Your task to perform on an android device: Search for "usb-a" on ebay, select the first entry, and add it to the cart. Image 0: 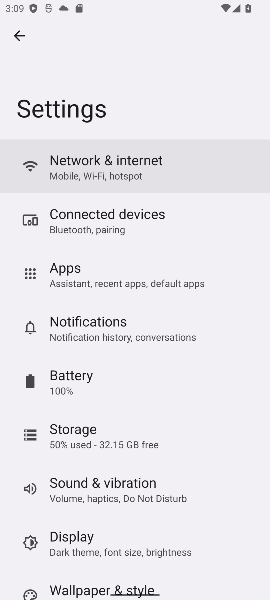
Step 0: press home button
Your task to perform on an android device: Search for "usb-a" on ebay, select the first entry, and add it to the cart. Image 1: 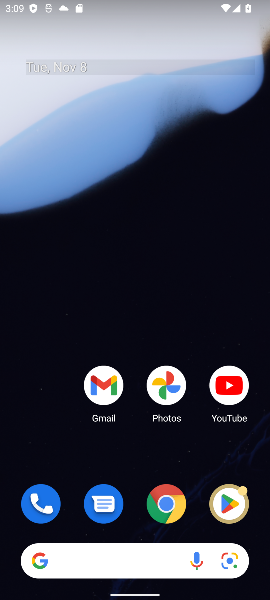
Step 1: drag from (65, 487) to (2, 131)
Your task to perform on an android device: Search for "usb-a" on ebay, select the first entry, and add it to the cart. Image 2: 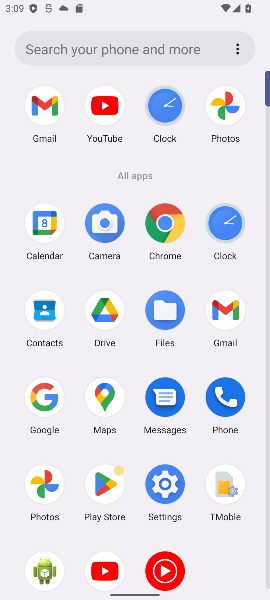
Step 2: click (165, 235)
Your task to perform on an android device: Search for "usb-a" on ebay, select the first entry, and add it to the cart. Image 3: 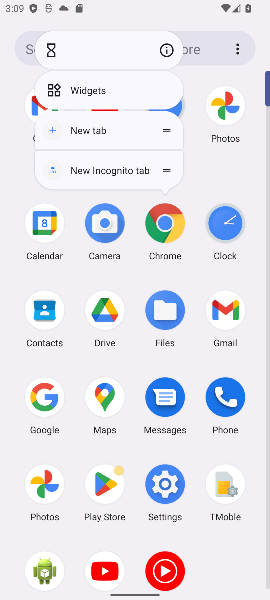
Step 3: click (165, 235)
Your task to perform on an android device: Search for "usb-a" on ebay, select the first entry, and add it to the cart. Image 4: 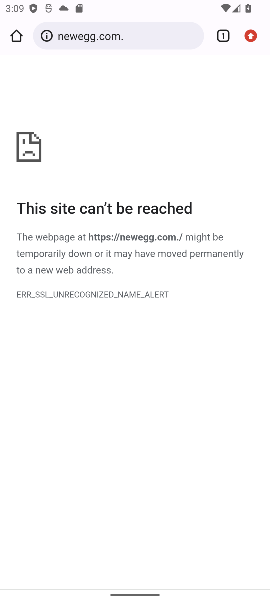
Step 4: click (132, 32)
Your task to perform on an android device: Search for "usb-a" on ebay, select the first entry, and add it to the cart. Image 5: 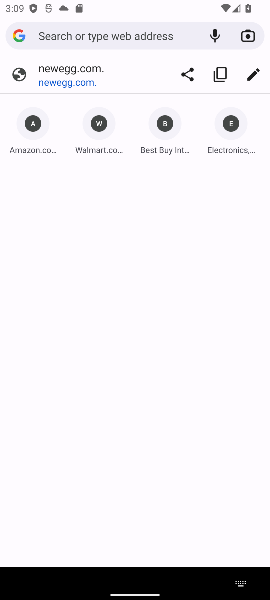
Step 5: type "ebay"
Your task to perform on an android device: Search for "usb-a" on ebay, select the first entry, and add it to the cart. Image 6: 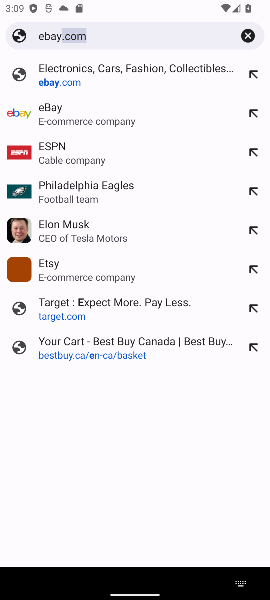
Step 6: press enter
Your task to perform on an android device: Search for "usb-a" on ebay, select the first entry, and add it to the cart. Image 7: 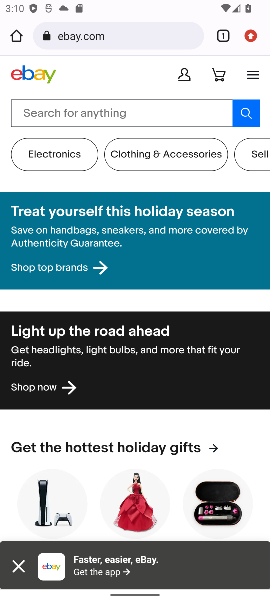
Step 7: click (73, 105)
Your task to perform on an android device: Search for "usb-a" on ebay, select the first entry, and add it to the cart. Image 8: 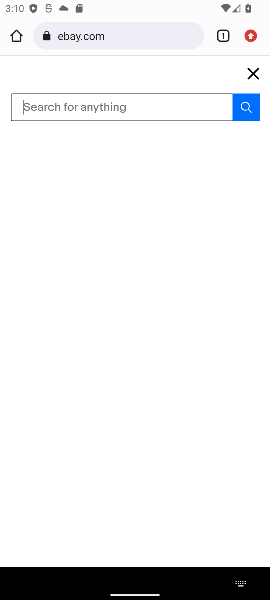
Step 8: type "usb-a"
Your task to perform on an android device: Search for "usb-a" on ebay, select the first entry, and add it to the cart. Image 9: 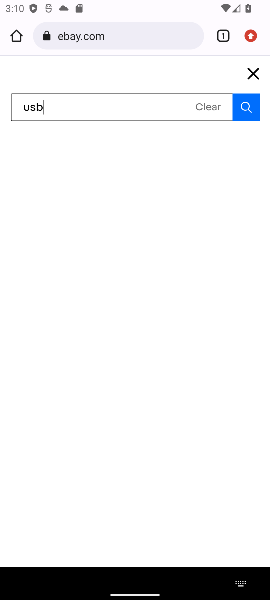
Step 9: press enter
Your task to perform on an android device: Search for "usb-a" on ebay, select the first entry, and add it to the cart. Image 10: 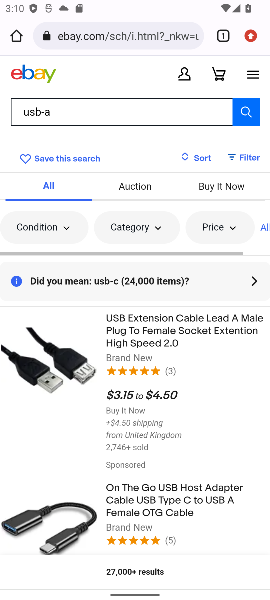
Step 10: click (137, 330)
Your task to perform on an android device: Search for "usb-a" on ebay, select the first entry, and add it to the cart. Image 11: 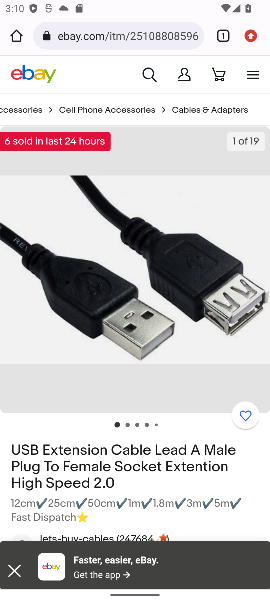
Step 11: drag from (151, 471) to (125, 300)
Your task to perform on an android device: Search for "usb-a" on ebay, select the first entry, and add it to the cart. Image 12: 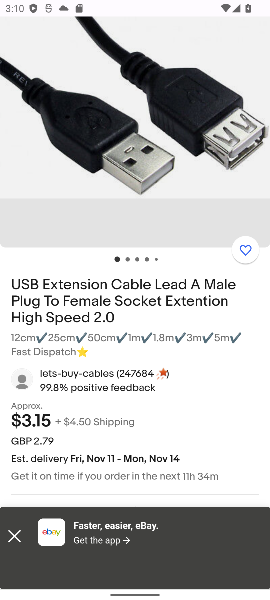
Step 12: drag from (128, 436) to (131, 255)
Your task to perform on an android device: Search for "usb-a" on ebay, select the first entry, and add it to the cart. Image 13: 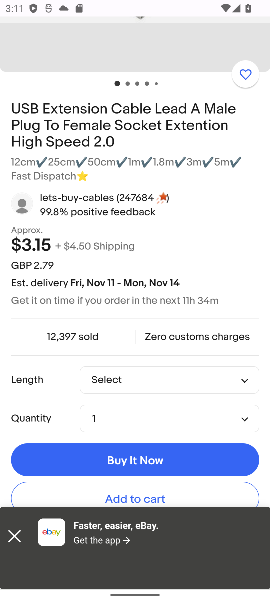
Step 13: drag from (141, 455) to (159, 255)
Your task to perform on an android device: Search for "usb-a" on ebay, select the first entry, and add it to the cart. Image 14: 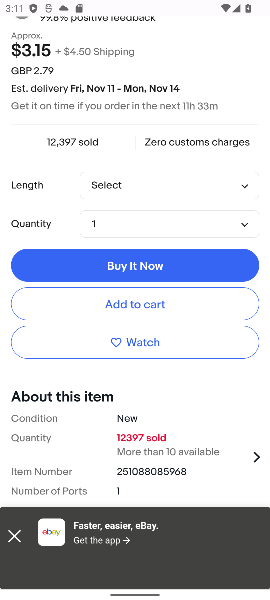
Step 14: click (141, 307)
Your task to perform on an android device: Search for "usb-a" on ebay, select the first entry, and add it to the cart. Image 15: 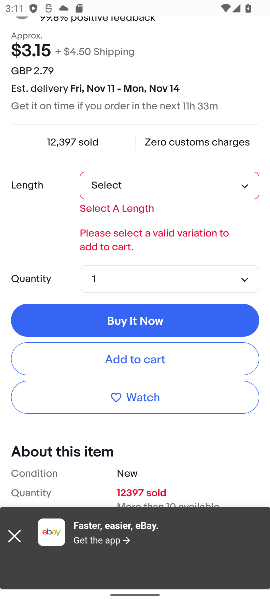
Step 15: click (134, 360)
Your task to perform on an android device: Search for "usb-a" on ebay, select the first entry, and add it to the cart. Image 16: 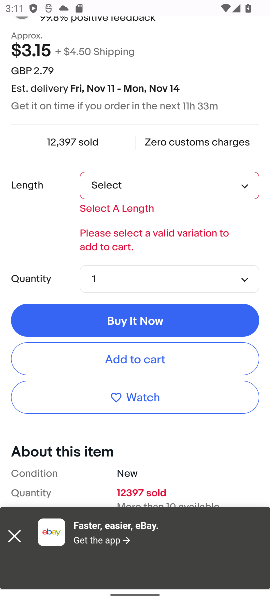
Step 16: click (134, 360)
Your task to perform on an android device: Search for "usb-a" on ebay, select the first entry, and add it to the cart. Image 17: 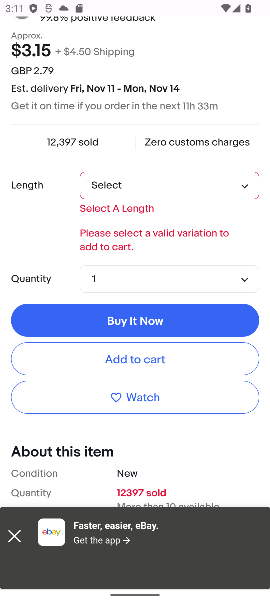
Step 17: drag from (144, 171) to (171, 277)
Your task to perform on an android device: Search for "usb-a" on ebay, select the first entry, and add it to the cart. Image 18: 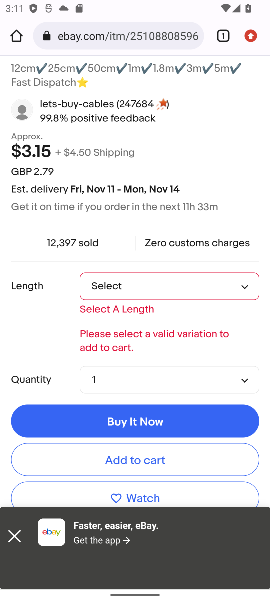
Step 18: click (105, 455)
Your task to perform on an android device: Search for "usb-a" on ebay, select the first entry, and add it to the cart. Image 19: 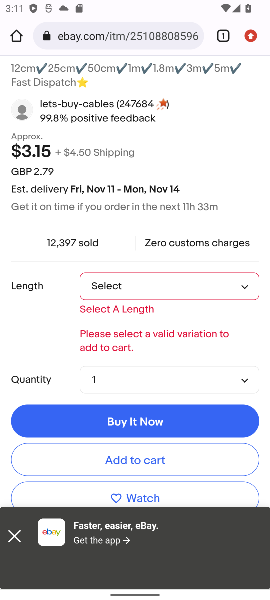
Step 19: click (19, 536)
Your task to perform on an android device: Search for "usb-a" on ebay, select the first entry, and add it to the cart. Image 20: 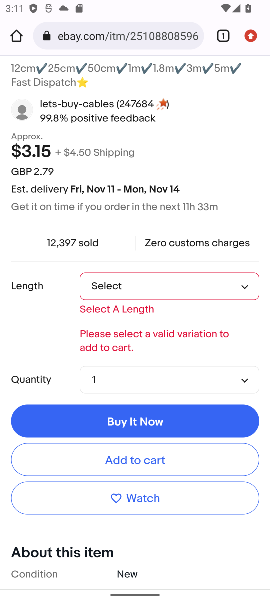
Step 20: click (176, 463)
Your task to perform on an android device: Search for "usb-a" on ebay, select the first entry, and add it to the cart. Image 21: 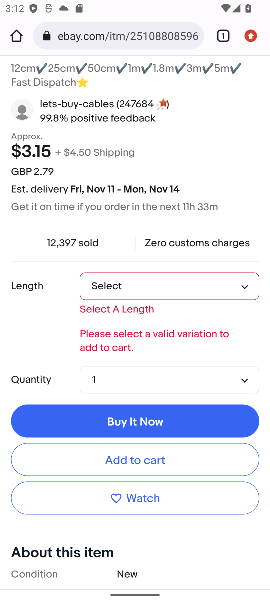
Step 21: click (147, 449)
Your task to perform on an android device: Search for "usb-a" on ebay, select the first entry, and add it to the cart. Image 22: 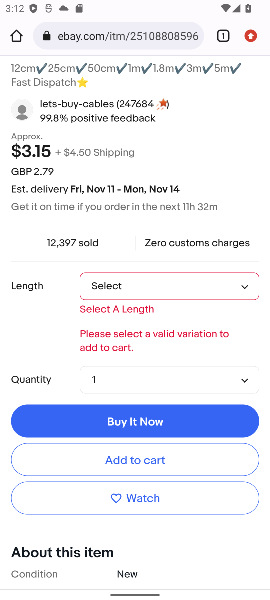
Step 22: click (136, 463)
Your task to perform on an android device: Search for "usb-a" on ebay, select the first entry, and add it to the cart. Image 23: 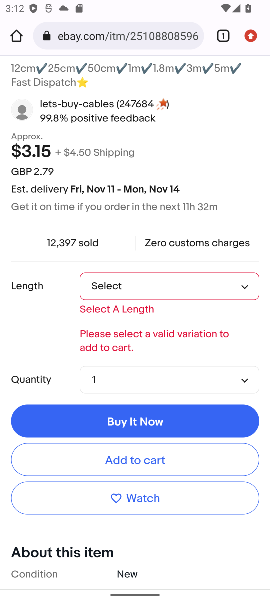
Step 23: drag from (148, 231) to (186, 436)
Your task to perform on an android device: Search for "usb-a" on ebay, select the first entry, and add it to the cart. Image 24: 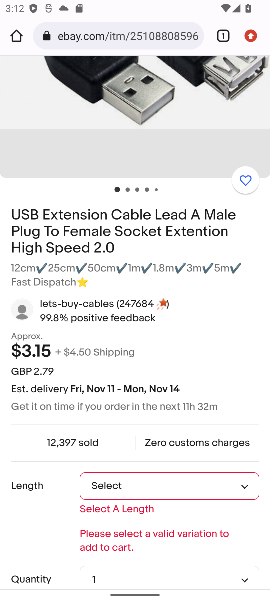
Step 24: click (196, 480)
Your task to perform on an android device: Search for "usb-a" on ebay, select the first entry, and add it to the cart. Image 25: 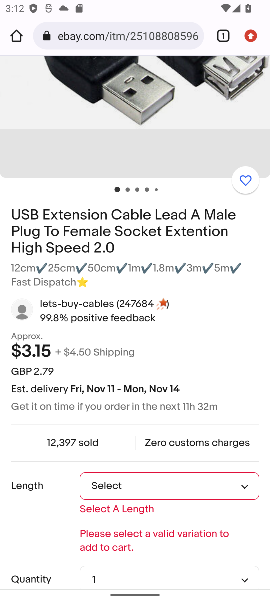
Step 25: click (244, 490)
Your task to perform on an android device: Search for "usb-a" on ebay, select the first entry, and add it to the cart. Image 26: 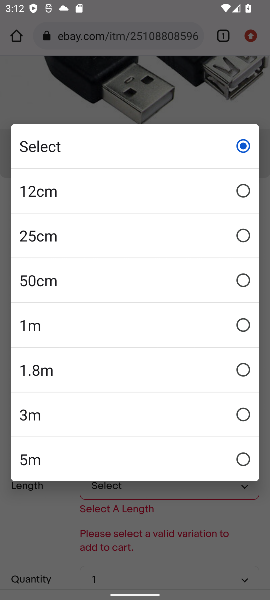
Step 26: click (44, 332)
Your task to perform on an android device: Search for "usb-a" on ebay, select the first entry, and add it to the cart. Image 27: 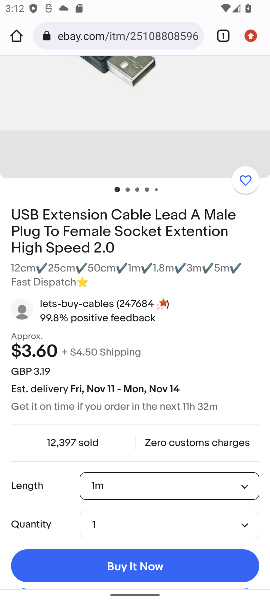
Step 27: drag from (133, 485) to (164, 251)
Your task to perform on an android device: Search for "usb-a" on ebay, select the first entry, and add it to the cart. Image 28: 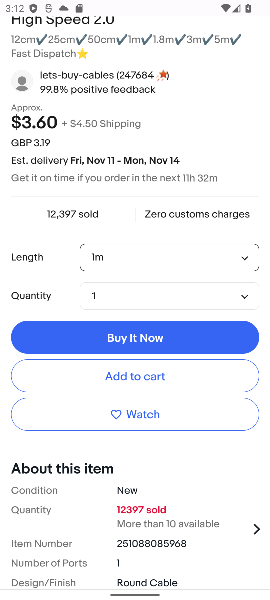
Step 28: click (144, 373)
Your task to perform on an android device: Search for "usb-a" on ebay, select the first entry, and add it to the cart. Image 29: 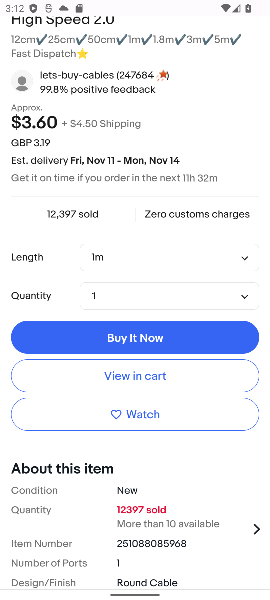
Step 29: task complete